Your task to perform on an android device: create a new album in the google photos Image 0: 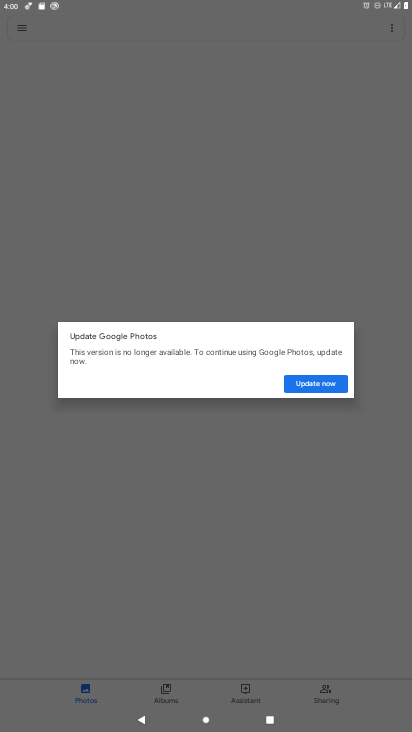
Step 0: press home button
Your task to perform on an android device: create a new album in the google photos Image 1: 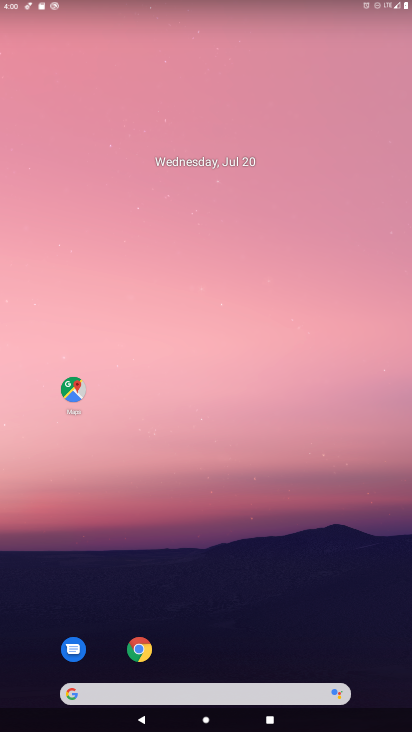
Step 1: drag from (185, 686) to (156, 126)
Your task to perform on an android device: create a new album in the google photos Image 2: 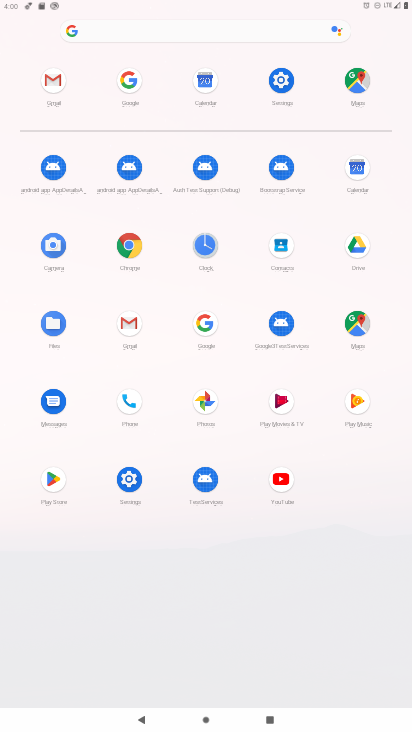
Step 2: click (207, 401)
Your task to perform on an android device: create a new album in the google photos Image 3: 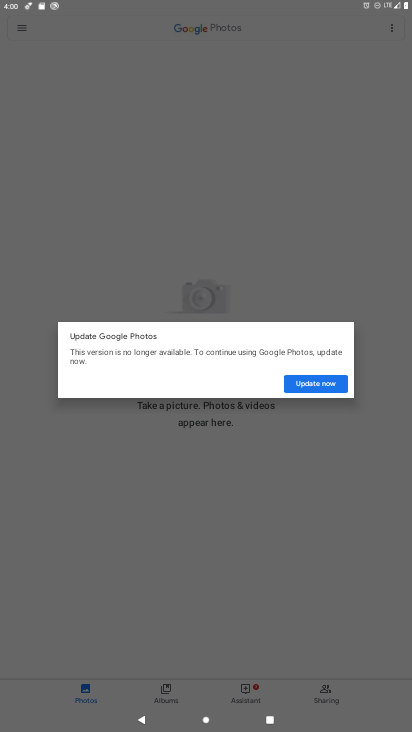
Step 3: click (303, 382)
Your task to perform on an android device: create a new album in the google photos Image 4: 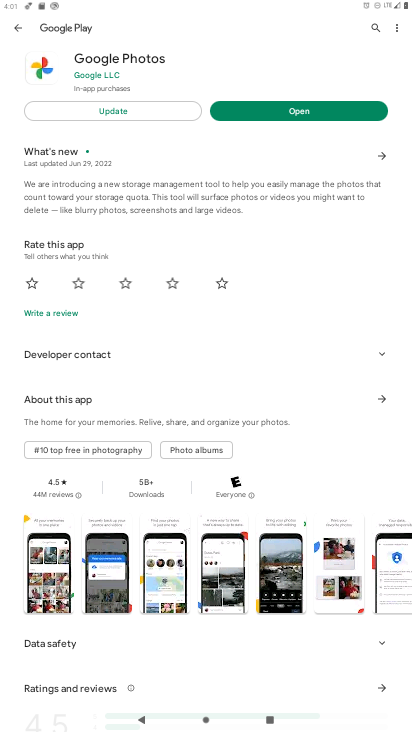
Step 4: click (121, 107)
Your task to perform on an android device: create a new album in the google photos Image 5: 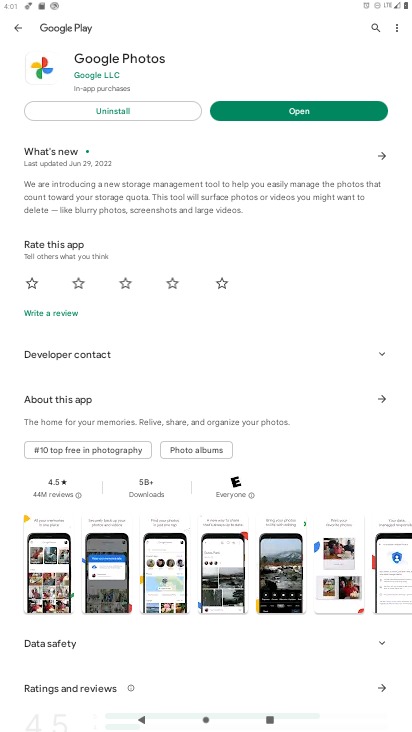
Step 5: click (268, 115)
Your task to perform on an android device: create a new album in the google photos Image 6: 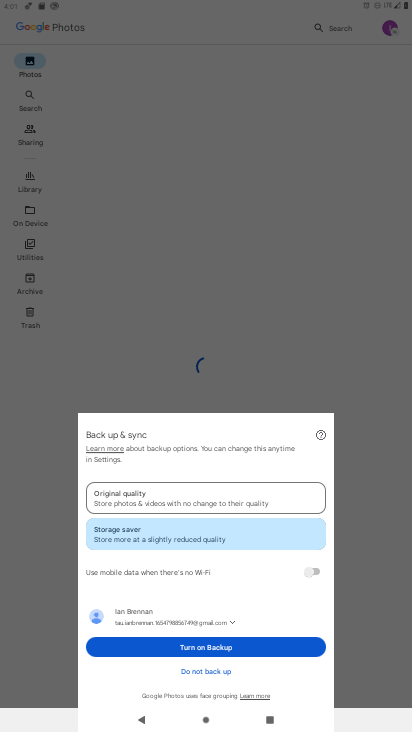
Step 6: click (214, 651)
Your task to perform on an android device: create a new album in the google photos Image 7: 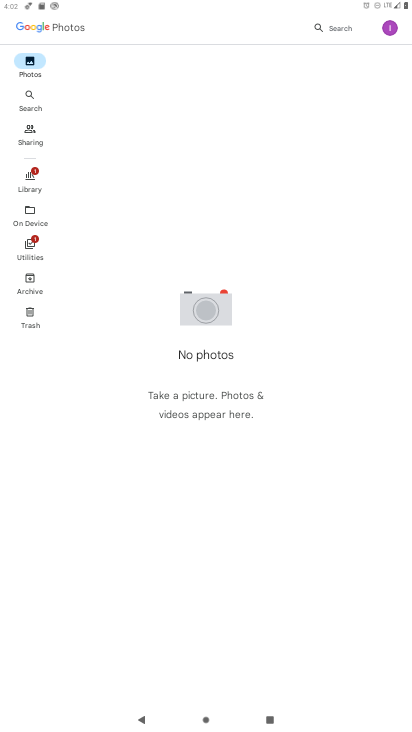
Step 7: click (37, 106)
Your task to perform on an android device: create a new album in the google photos Image 8: 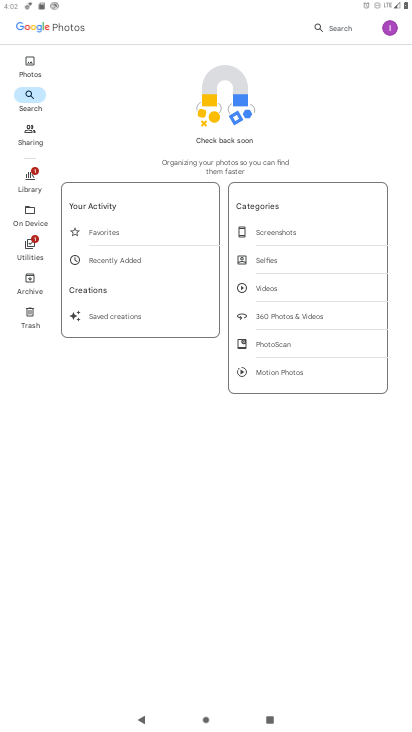
Step 8: click (111, 224)
Your task to perform on an android device: create a new album in the google photos Image 9: 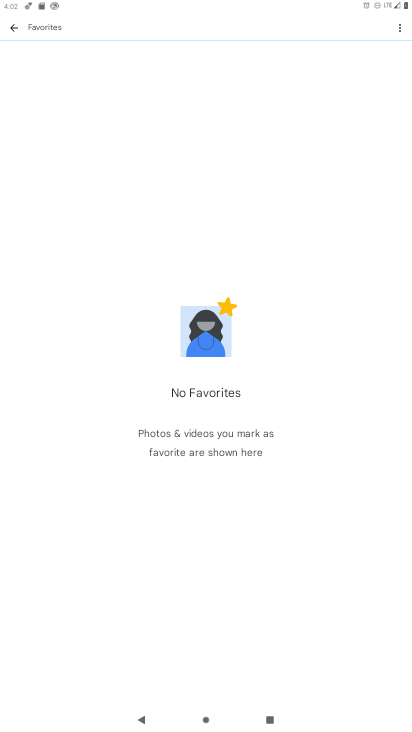
Step 9: press back button
Your task to perform on an android device: create a new album in the google photos Image 10: 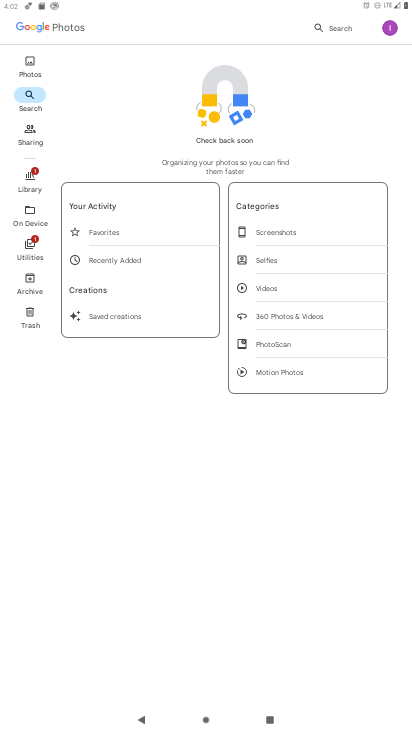
Step 10: click (101, 260)
Your task to perform on an android device: create a new album in the google photos Image 11: 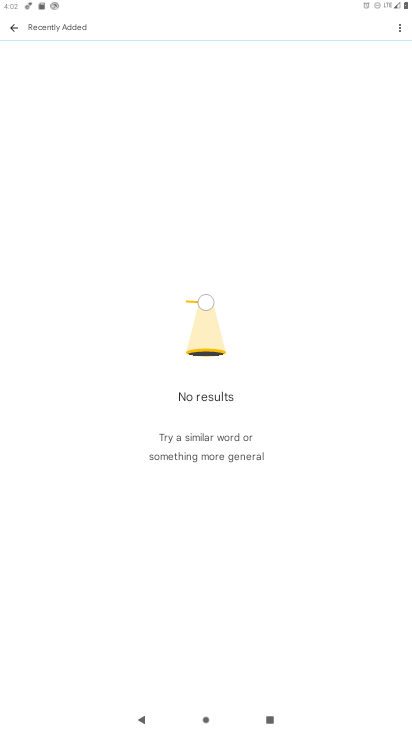
Step 11: press back button
Your task to perform on an android device: create a new album in the google photos Image 12: 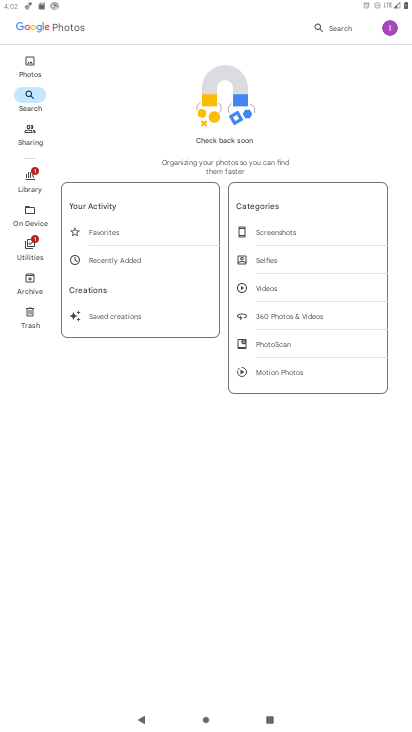
Step 12: click (297, 235)
Your task to perform on an android device: create a new album in the google photos Image 13: 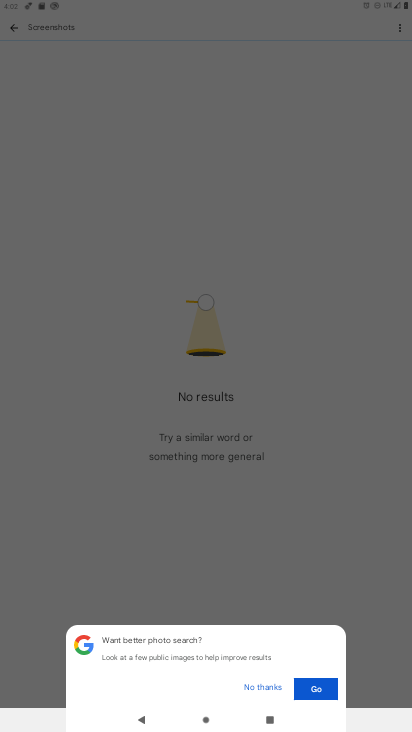
Step 13: task complete